Your task to perform on an android device: Open calendar and show me the fourth week of next month Image 0: 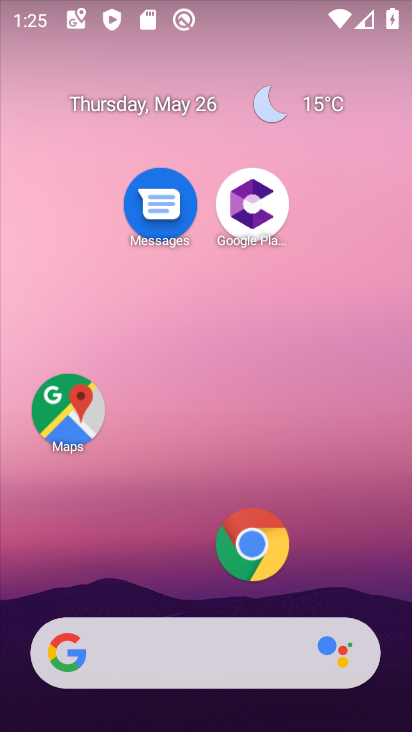
Step 0: click (160, 110)
Your task to perform on an android device: Open calendar and show me the fourth week of next month Image 1: 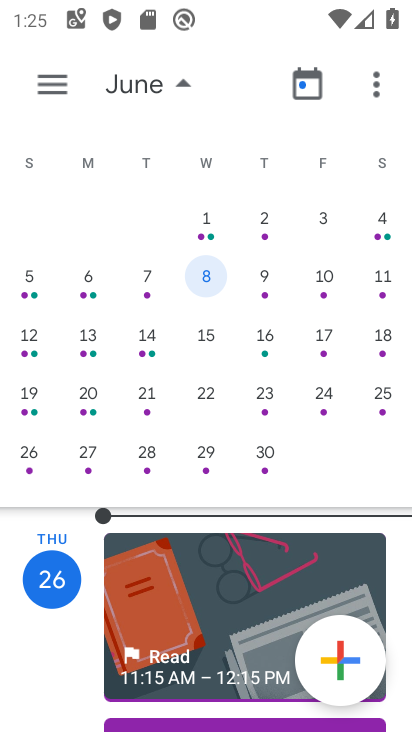
Step 1: click (247, 397)
Your task to perform on an android device: Open calendar and show me the fourth week of next month Image 2: 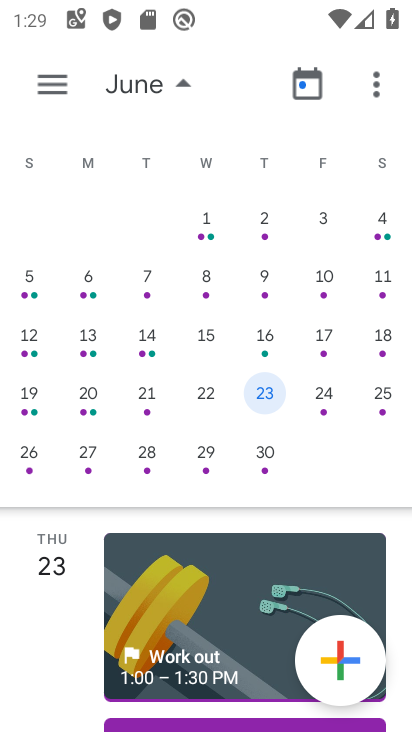
Step 2: task complete